Your task to perform on an android device: open app "PlayWell" Image 0: 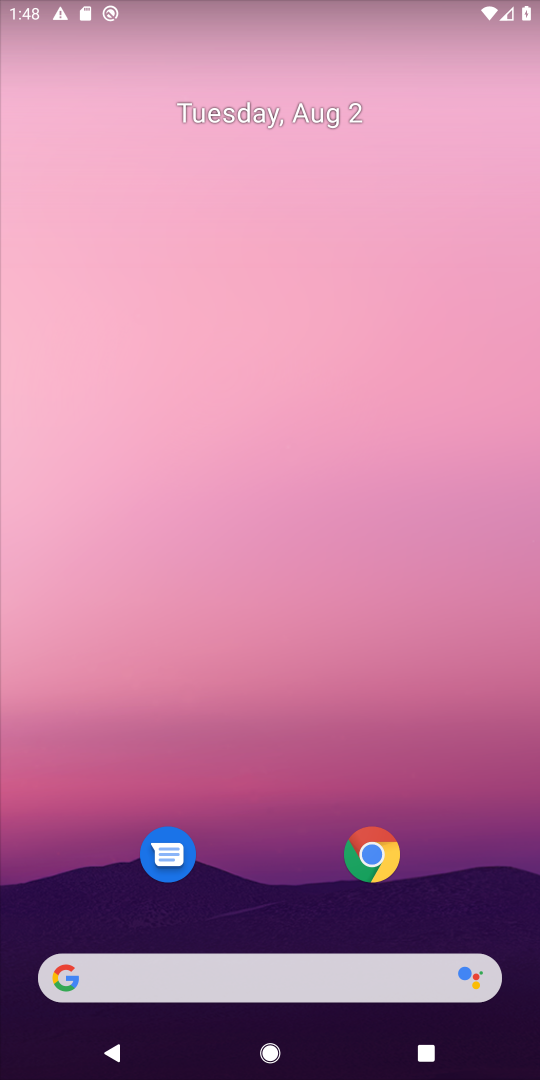
Step 0: drag from (323, 1031) to (273, 71)
Your task to perform on an android device: open app "PlayWell" Image 1: 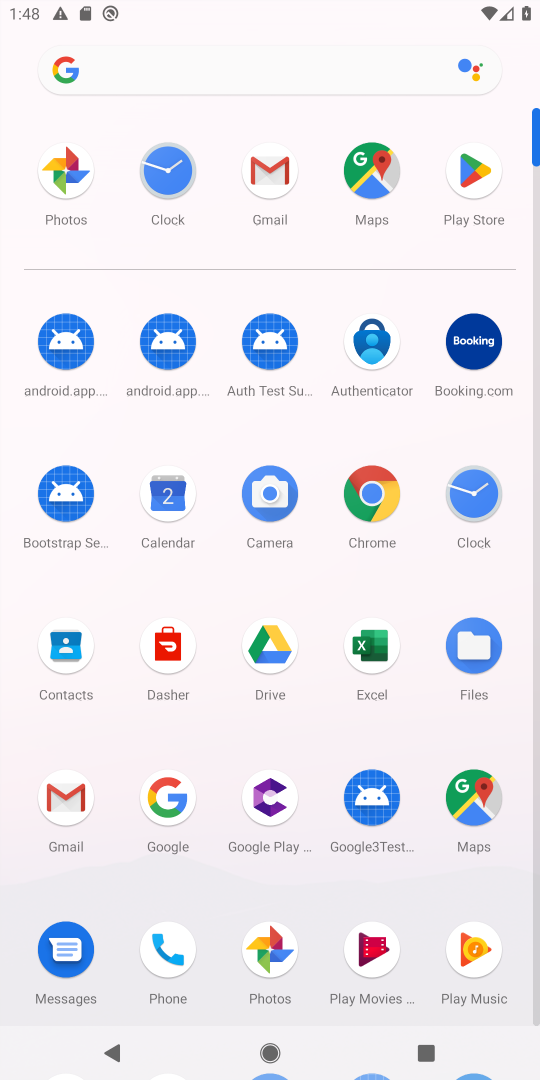
Step 1: click (471, 174)
Your task to perform on an android device: open app "PlayWell" Image 2: 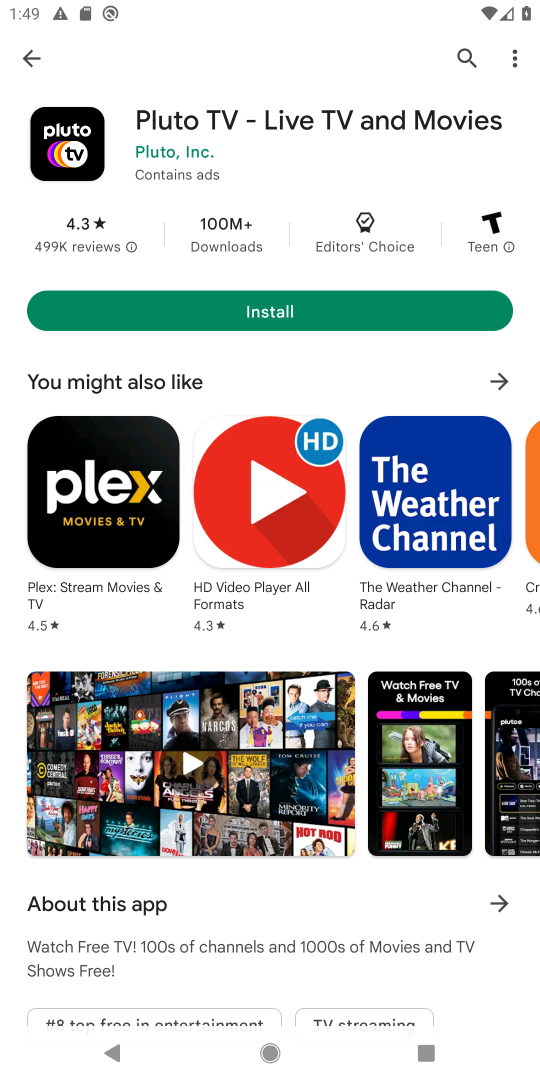
Step 2: click (458, 53)
Your task to perform on an android device: open app "PlayWell" Image 3: 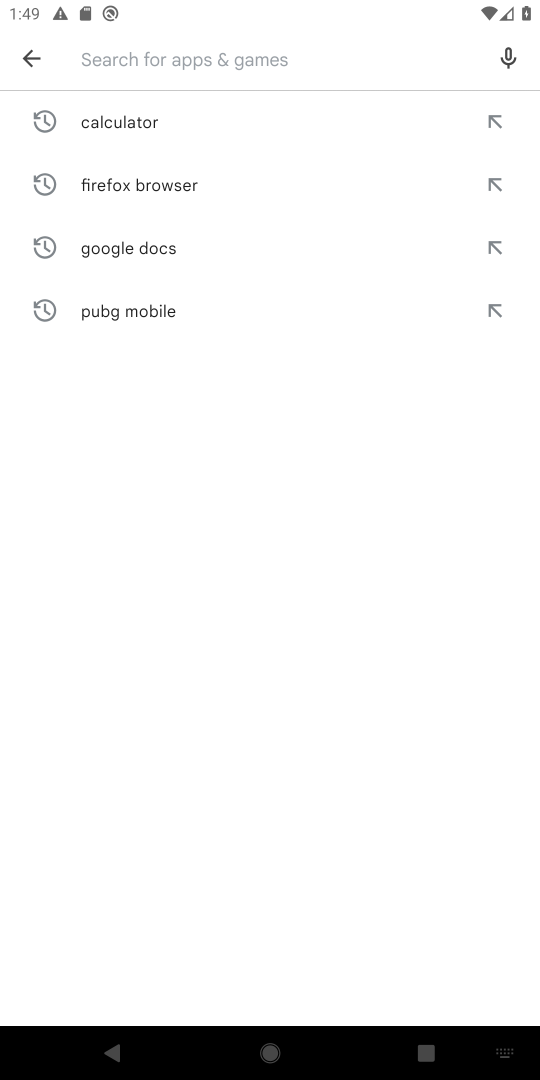
Step 3: type "PlayWell"
Your task to perform on an android device: open app "PlayWell" Image 4: 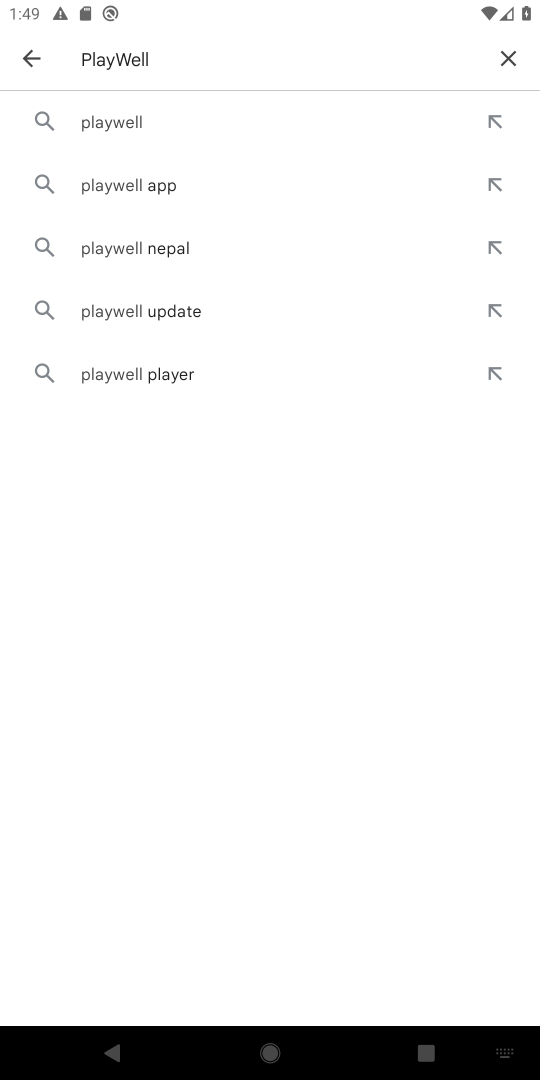
Step 4: click (96, 122)
Your task to perform on an android device: open app "PlayWell" Image 5: 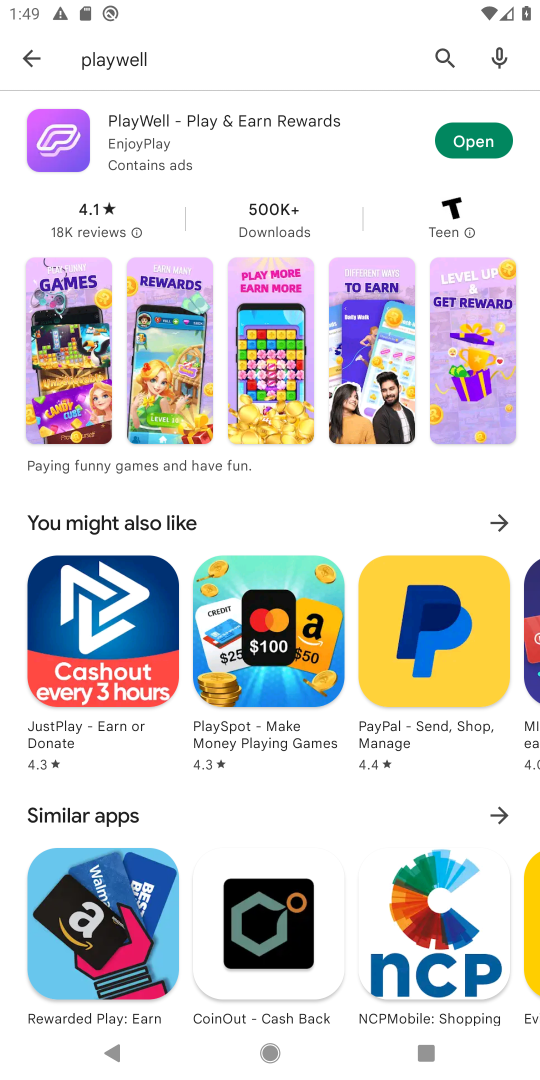
Step 5: click (471, 146)
Your task to perform on an android device: open app "PlayWell" Image 6: 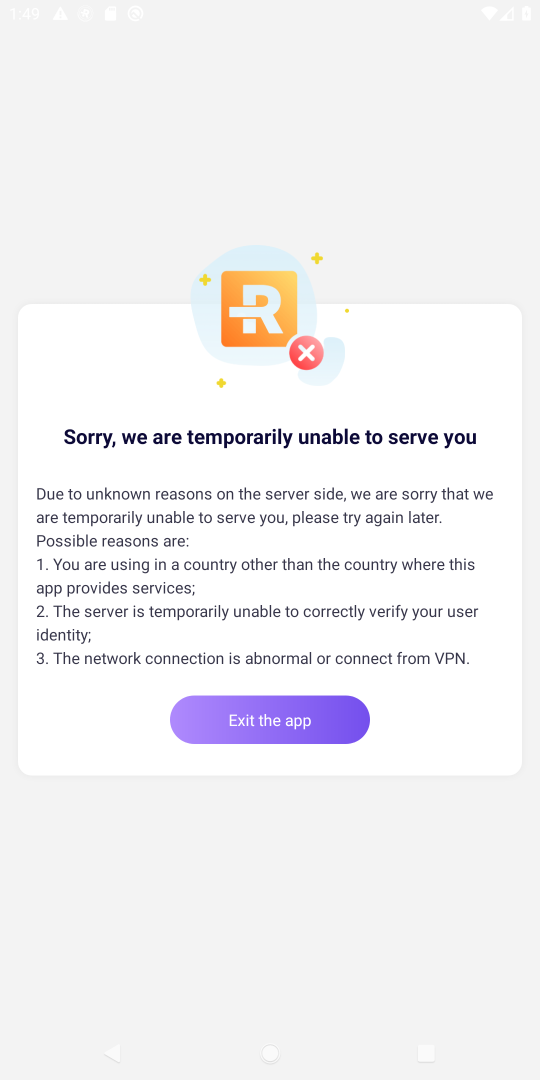
Step 6: task complete